Your task to perform on an android device: star an email in the gmail app Image 0: 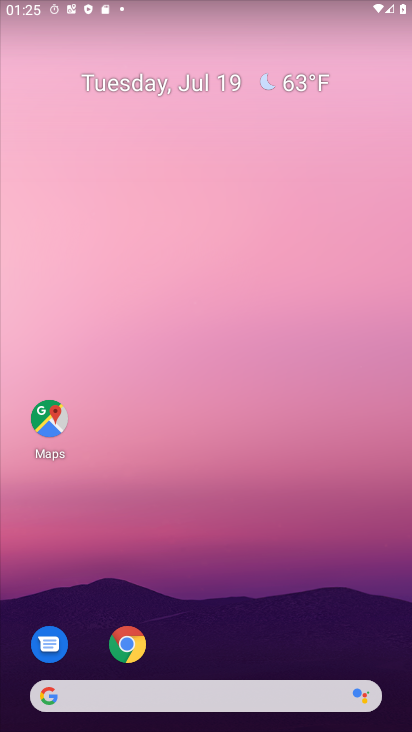
Step 0: drag from (229, 703) to (219, 206)
Your task to perform on an android device: star an email in the gmail app Image 1: 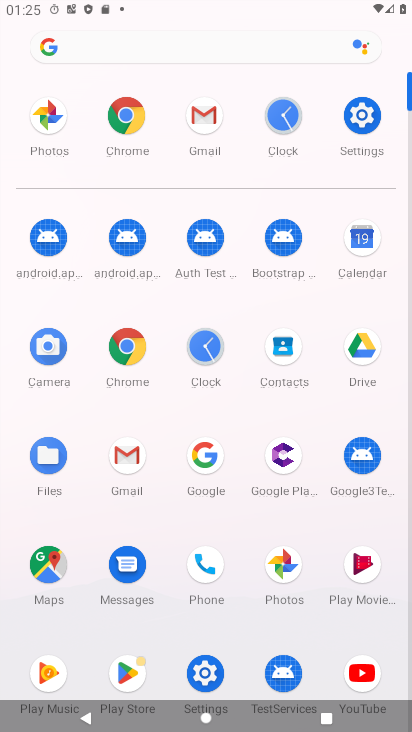
Step 1: click (126, 460)
Your task to perform on an android device: star an email in the gmail app Image 2: 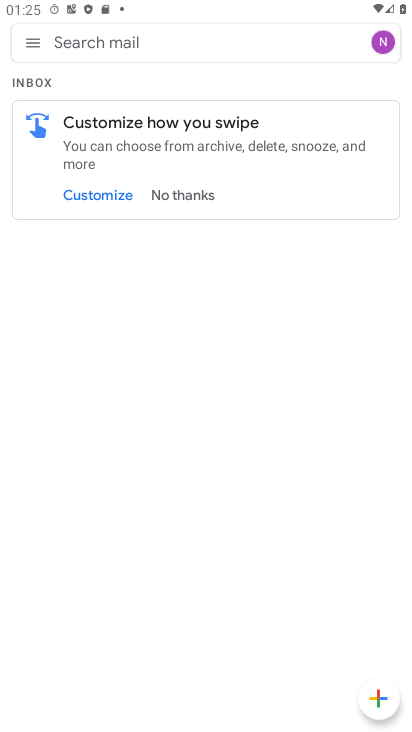
Step 2: click (46, 47)
Your task to perform on an android device: star an email in the gmail app Image 3: 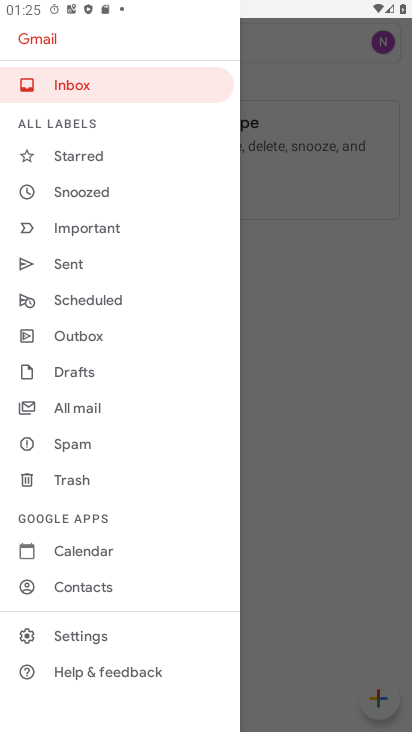
Step 3: drag from (85, 101) to (76, 296)
Your task to perform on an android device: star an email in the gmail app Image 4: 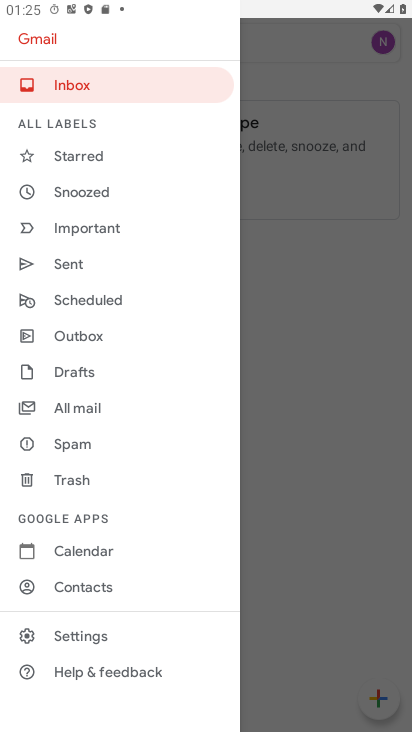
Step 4: click (88, 84)
Your task to perform on an android device: star an email in the gmail app Image 5: 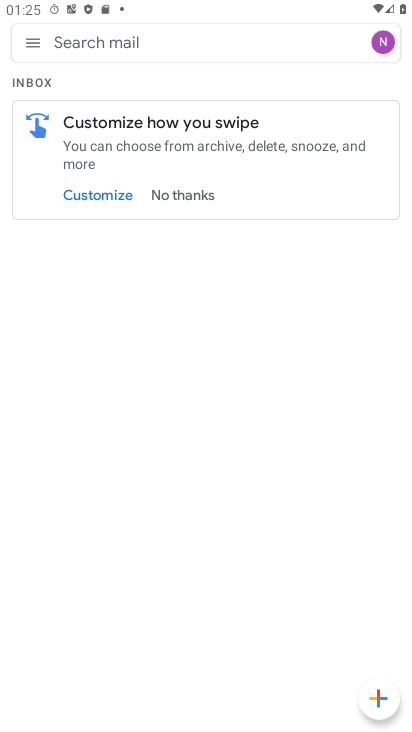
Step 5: task complete